Your task to perform on an android device: Open my contact list Image 0: 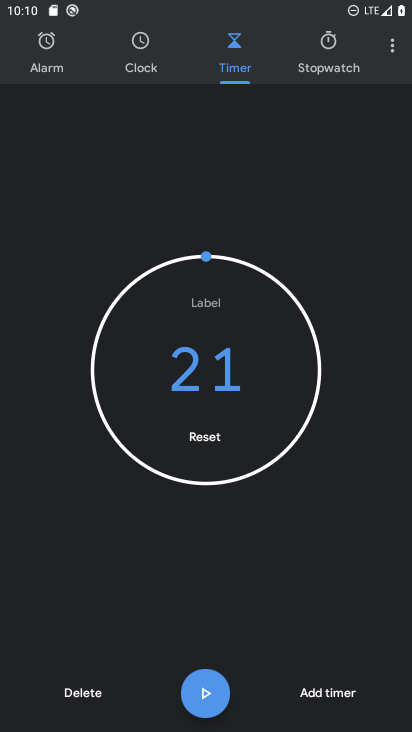
Step 0: press home button
Your task to perform on an android device: Open my contact list Image 1: 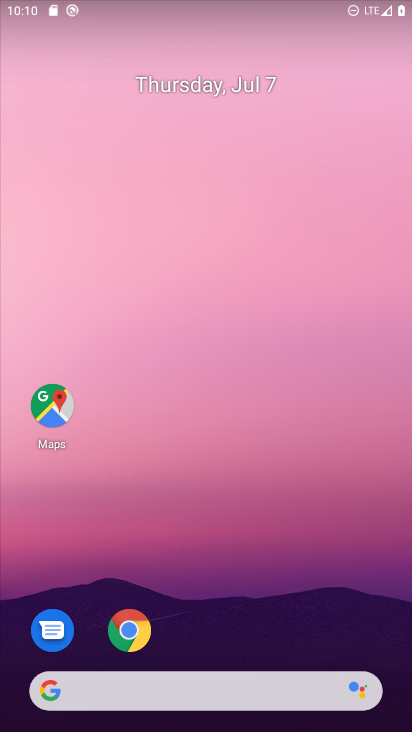
Step 1: drag from (219, 635) to (215, 148)
Your task to perform on an android device: Open my contact list Image 2: 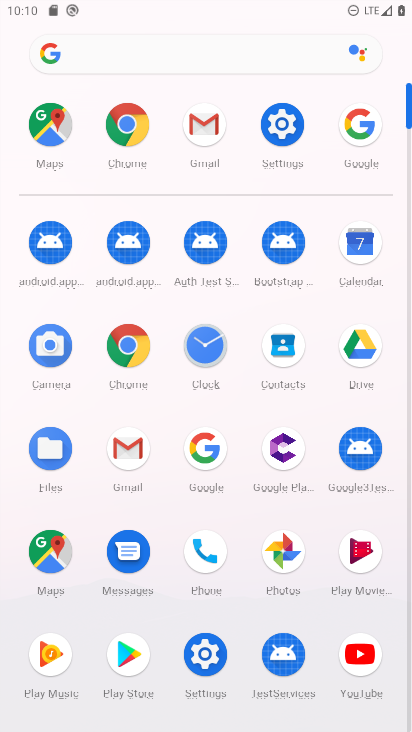
Step 2: click (288, 338)
Your task to perform on an android device: Open my contact list Image 3: 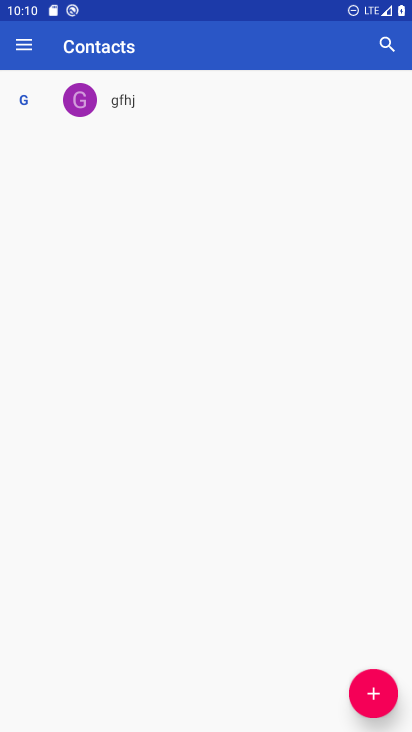
Step 3: task complete